Your task to perform on an android device: change notification settings in the gmail app Image 0: 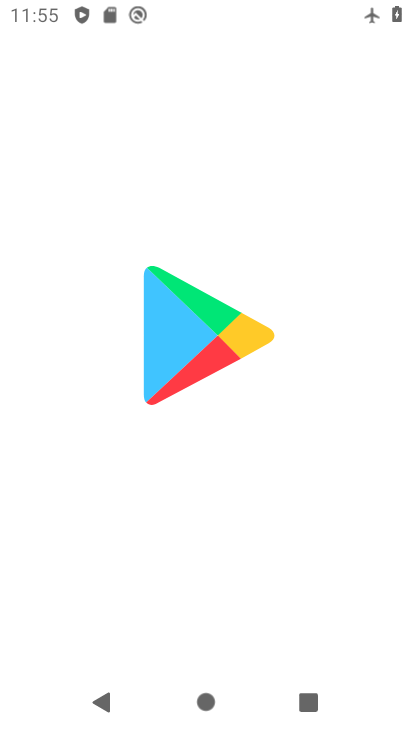
Step 0: press home button
Your task to perform on an android device: change notification settings in the gmail app Image 1: 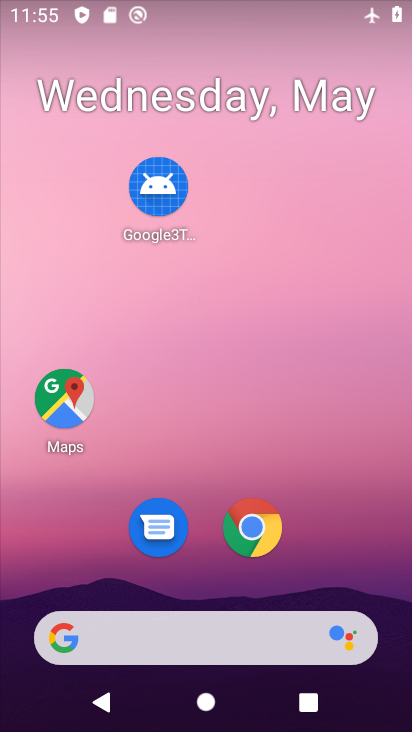
Step 1: drag from (203, 587) to (246, 56)
Your task to perform on an android device: change notification settings in the gmail app Image 2: 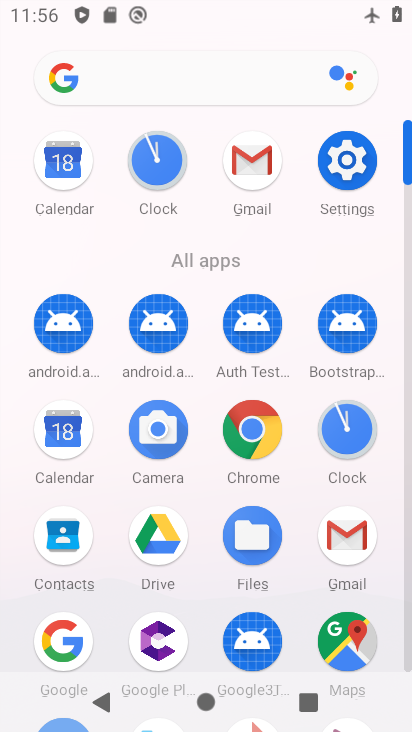
Step 2: click (253, 152)
Your task to perform on an android device: change notification settings in the gmail app Image 3: 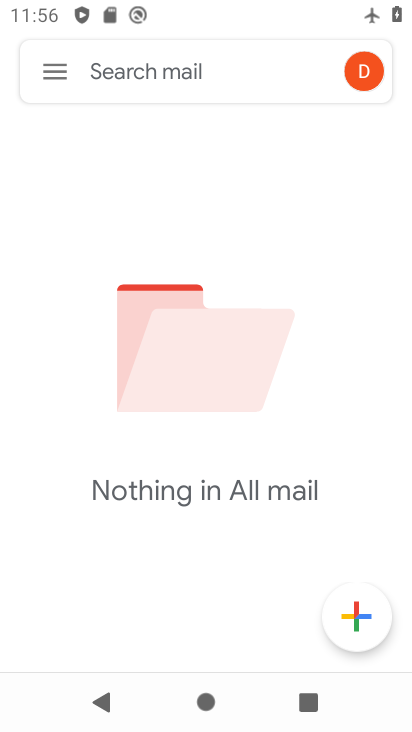
Step 3: click (49, 71)
Your task to perform on an android device: change notification settings in the gmail app Image 4: 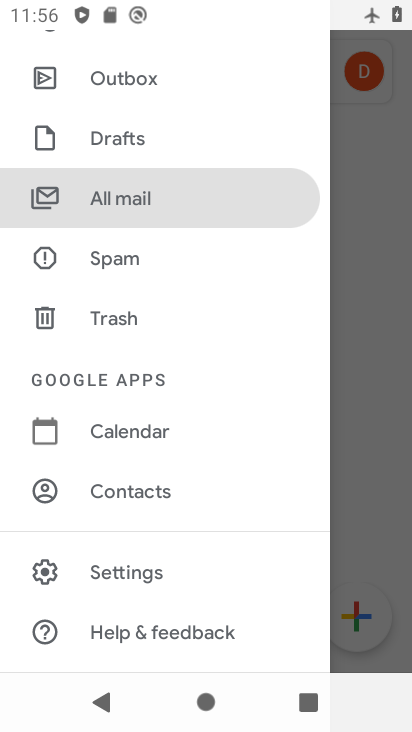
Step 4: click (168, 569)
Your task to perform on an android device: change notification settings in the gmail app Image 5: 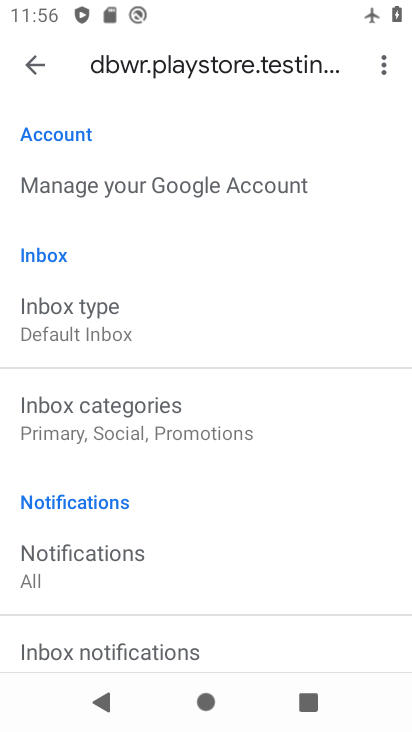
Step 5: click (41, 75)
Your task to perform on an android device: change notification settings in the gmail app Image 6: 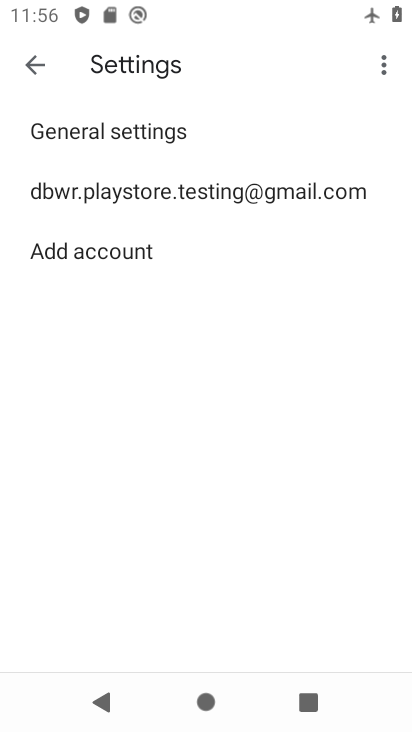
Step 6: click (192, 131)
Your task to perform on an android device: change notification settings in the gmail app Image 7: 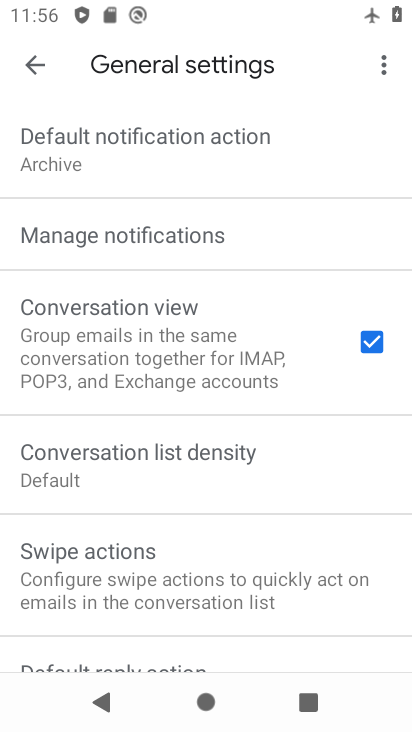
Step 7: click (241, 235)
Your task to perform on an android device: change notification settings in the gmail app Image 8: 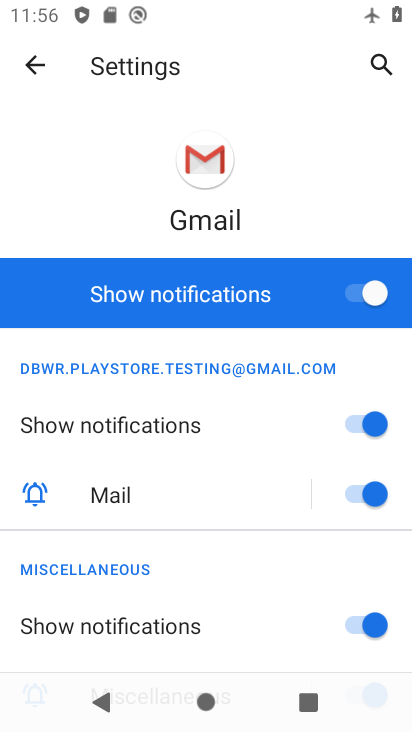
Step 8: click (359, 287)
Your task to perform on an android device: change notification settings in the gmail app Image 9: 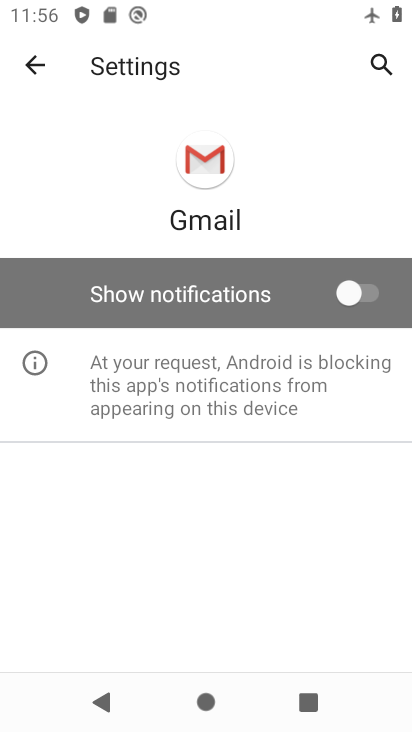
Step 9: task complete